Your task to perform on an android device: check out phone information Image 0: 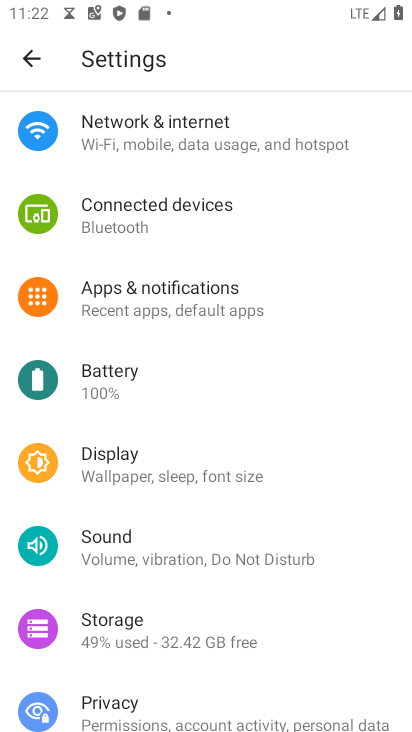
Step 0: drag from (205, 660) to (207, 90)
Your task to perform on an android device: check out phone information Image 1: 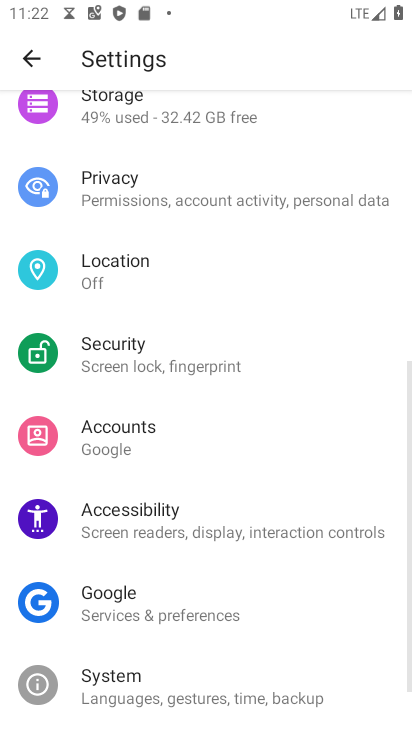
Step 1: drag from (218, 662) to (221, 181)
Your task to perform on an android device: check out phone information Image 2: 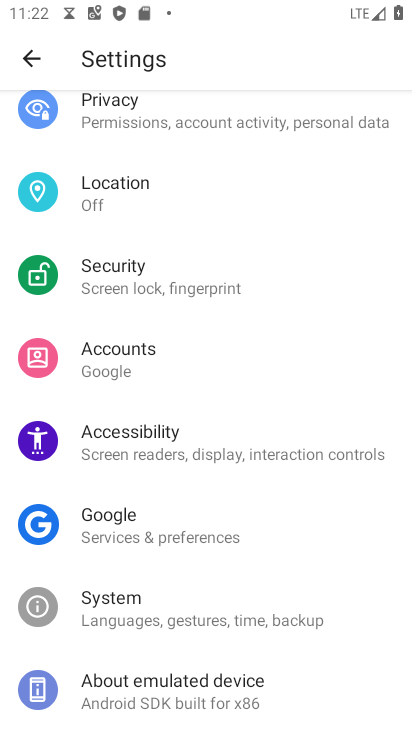
Step 2: click (198, 687)
Your task to perform on an android device: check out phone information Image 3: 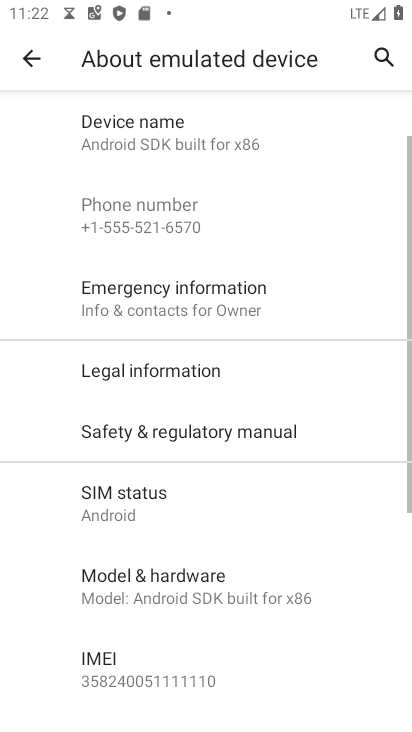
Step 3: task complete